Your task to perform on an android device: set the stopwatch Image 0: 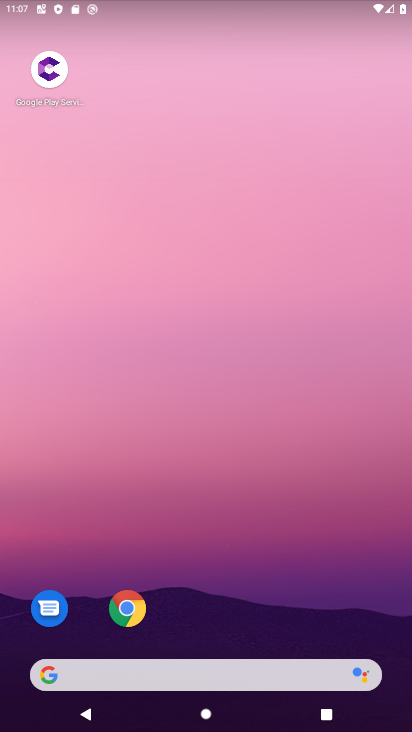
Step 0: drag from (218, 266) to (219, 110)
Your task to perform on an android device: set the stopwatch Image 1: 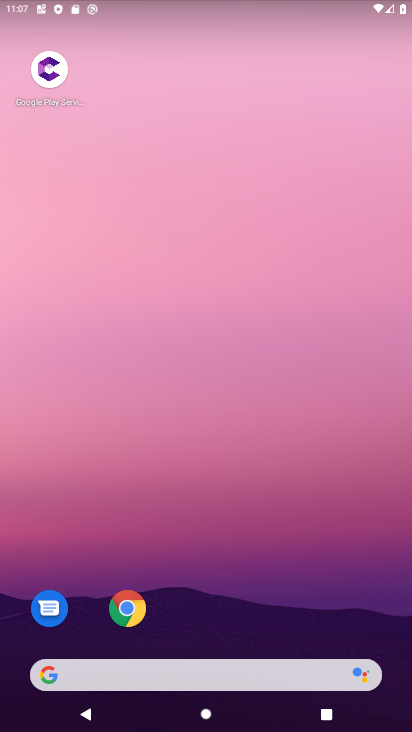
Step 1: drag from (216, 726) to (221, 40)
Your task to perform on an android device: set the stopwatch Image 2: 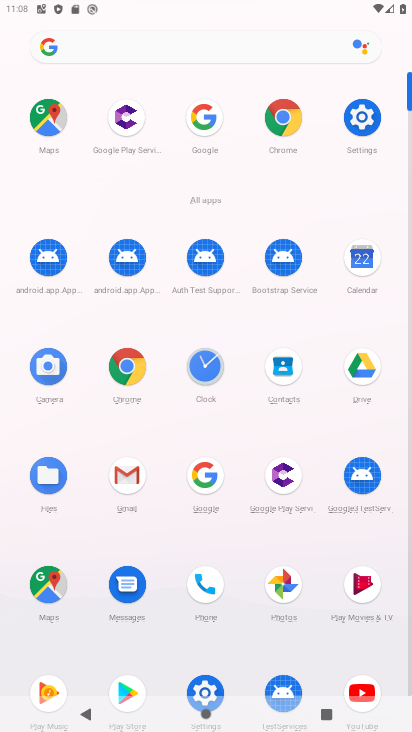
Step 2: click (214, 364)
Your task to perform on an android device: set the stopwatch Image 3: 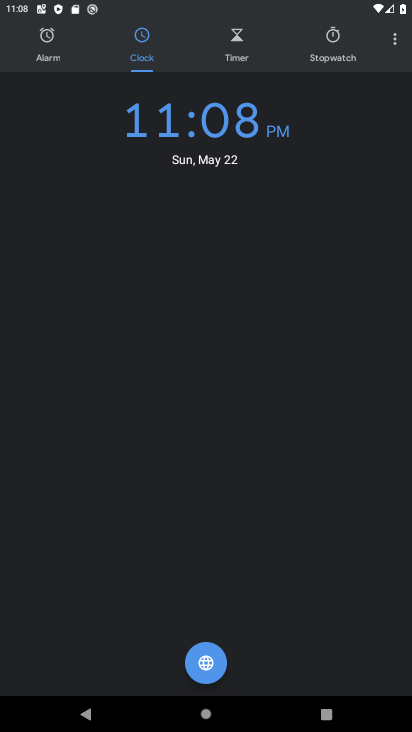
Step 3: click (327, 45)
Your task to perform on an android device: set the stopwatch Image 4: 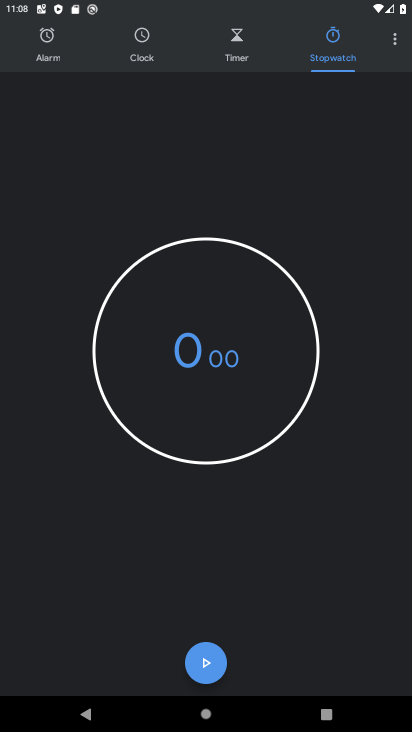
Step 4: click (240, 335)
Your task to perform on an android device: set the stopwatch Image 5: 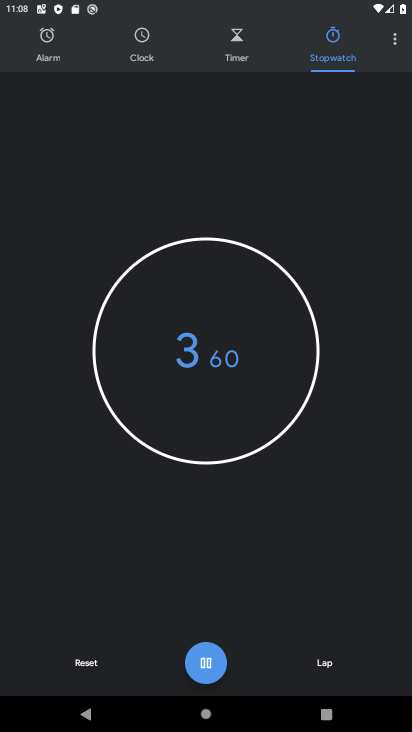
Step 5: type "876"
Your task to perform on an android device: set the stopwatch Image 6: 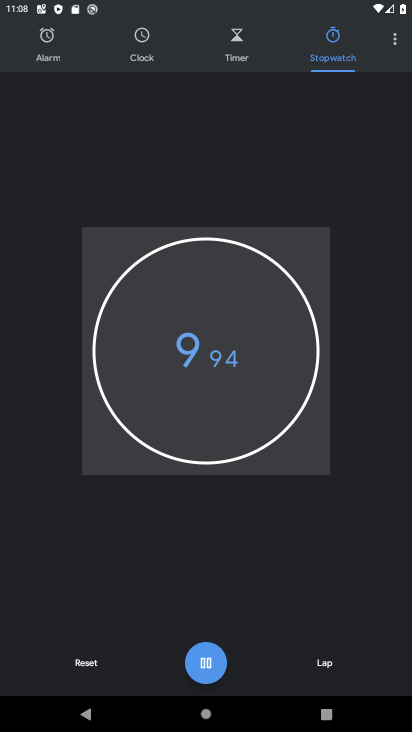
Step 6: task complete